Your task to perform on an android device: Search for Mexican restaurants on Maps Image 0: 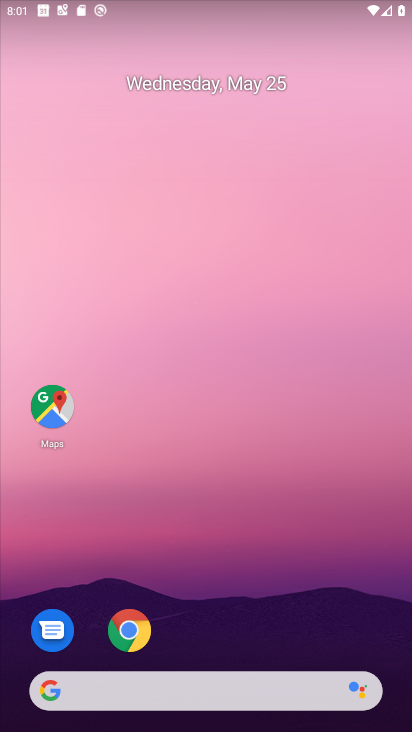
Step 0: click (46, 399)
Your task to perform on an android device: Search for Mexican restaurants on Maps Image 1: 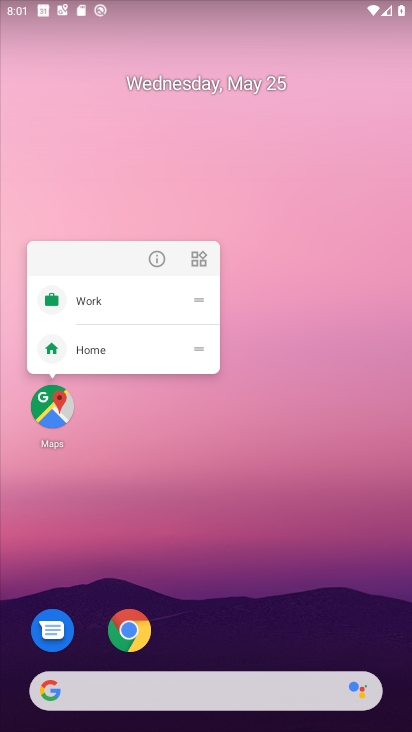
Step 1: click (64, 420)
Your task to perform on an android device: Search for Mexican restaurants on Maps Image 2: 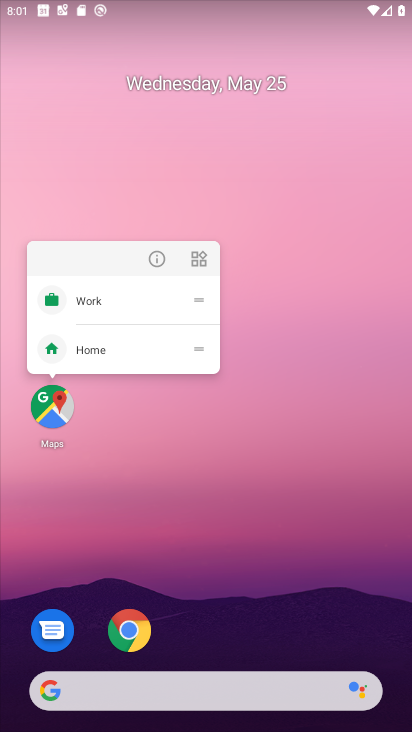
Step 2: click (55, 409)
Your task to perform on an android device: Search for Mexican restaurants on Maps Image 3: 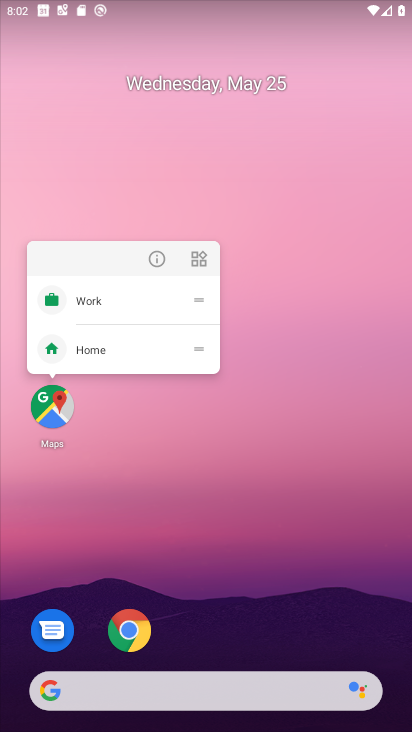
Step 3: click (52, 405)
Your task to perform on an android device: Search for Mexican restaurants on Maps Image 4: 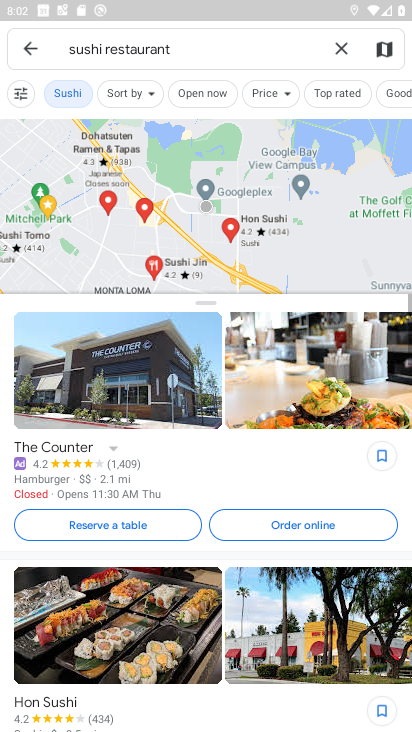
Step 4: click (340, 49)
Your task to perform on an android device: Search for Mexican restaurants on Maps Image 5: 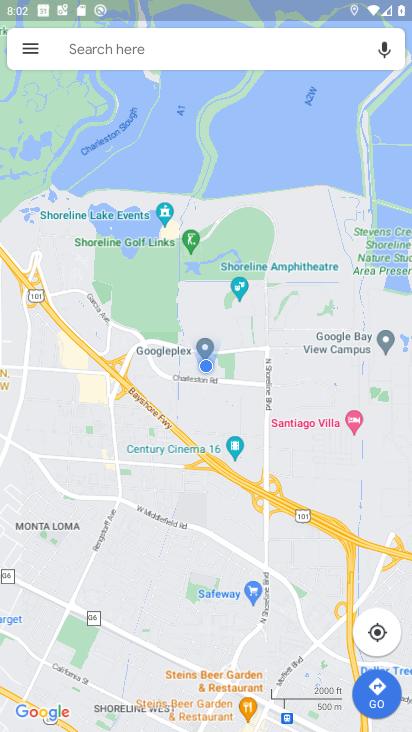
Step 5: click (199, 48)
Your task to perform on an android device: Search for Mexican restaurants on Maps Image 6: 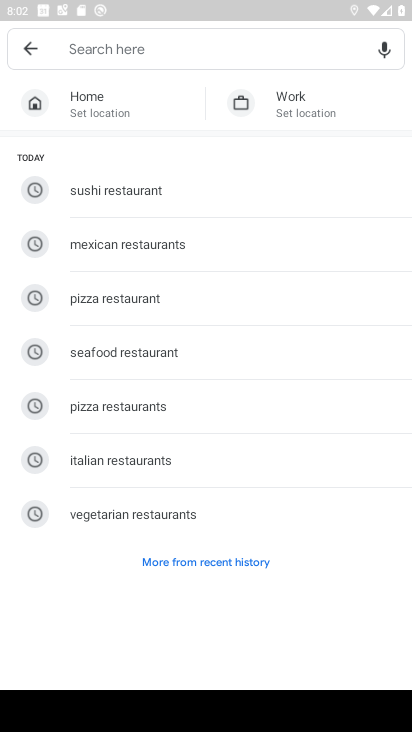
Step 6: click (109, 253)
Your task to perform on an android device: Search for Mexican restaurants on Maps Image 7: 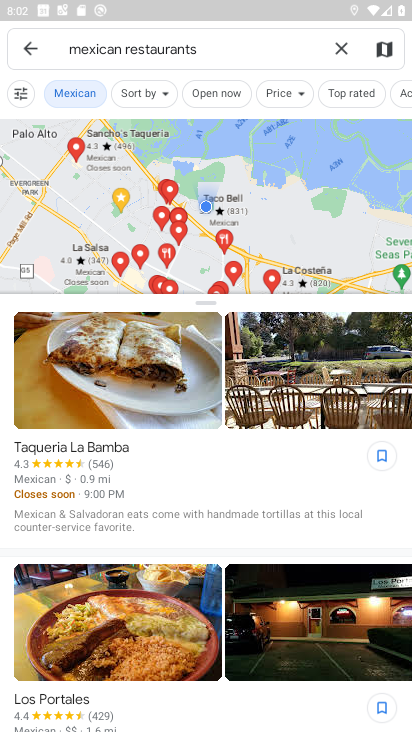
Step 7: task complete